Your task to perform on an android device: Open accessibility settings Image 0: 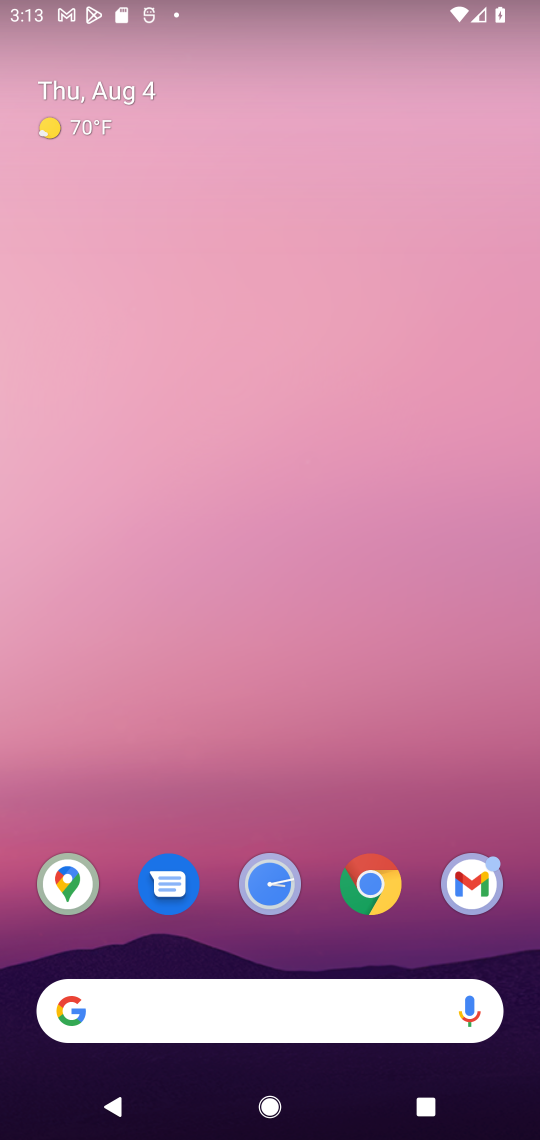
Step 0: drag from (234, 960) to (256, 252)
Your task to perform on an android device: Open accessibility settings Image 1: 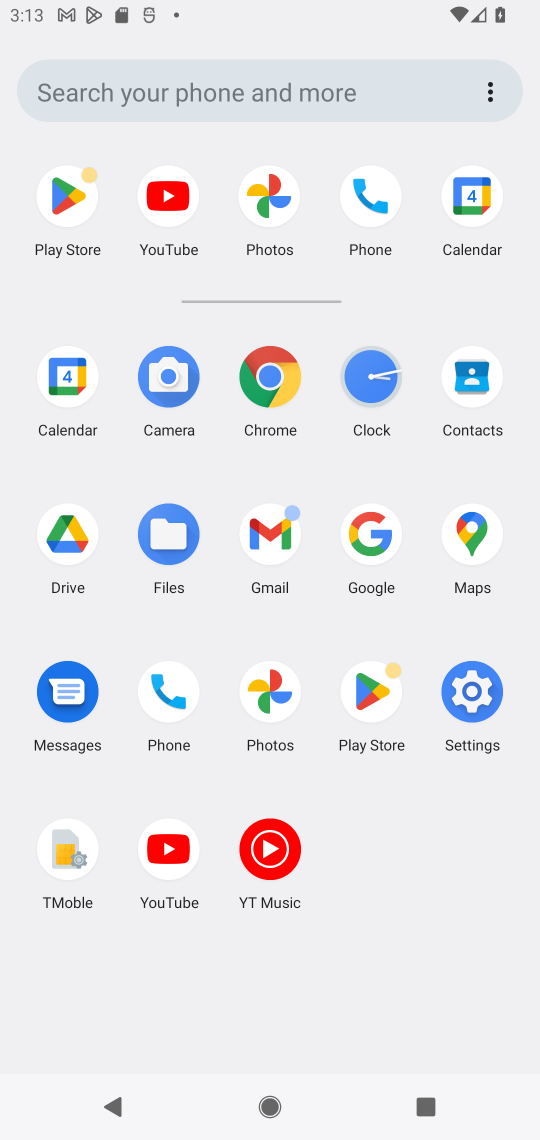
Step 1: click (486, 711)
Your task to perform on an android device: Open accessibility settings Image 2: 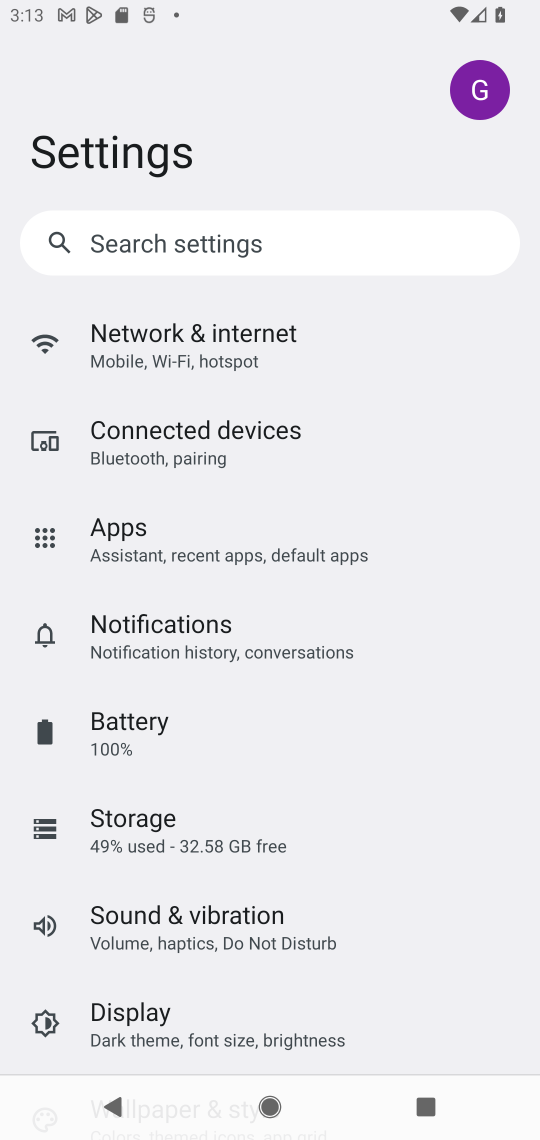
Step 2: drag from (225, 981) to (228, 496)
Your task to perform on an android device: Open accessibility settings Image 3: 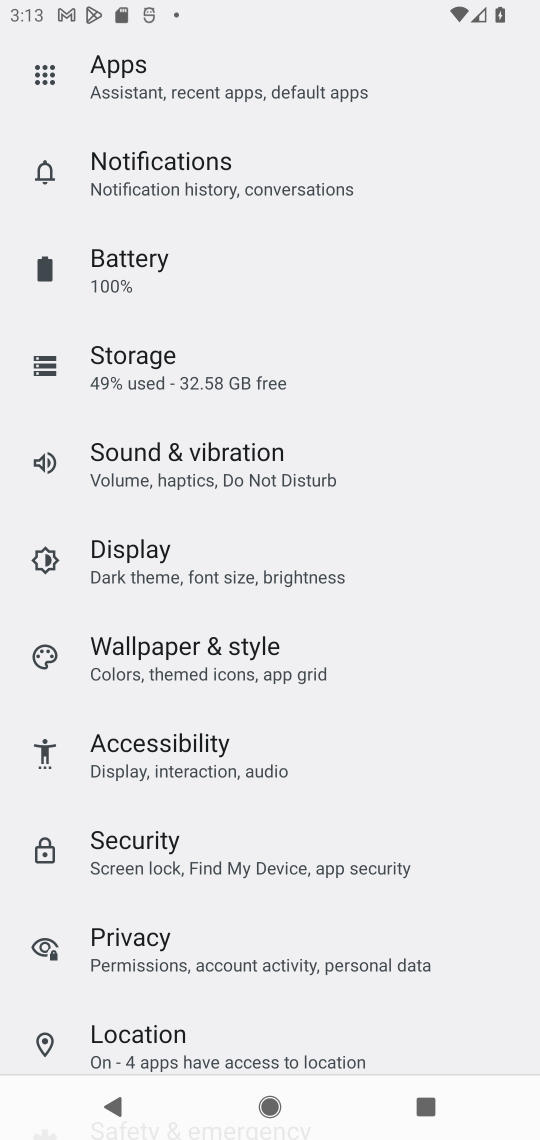
Step 3: click (217, 765)
Your task to perform on an android device: Open accessibility settings Image 4: 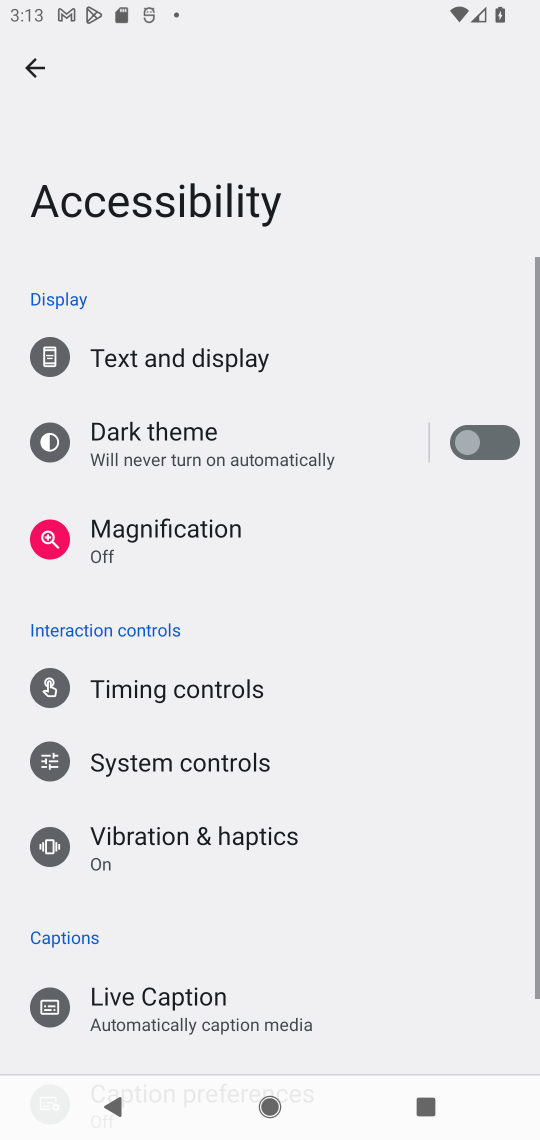
Step 4: task complete